Your task to perform on an android device: choose inbox layout in the gmail app Image 0: 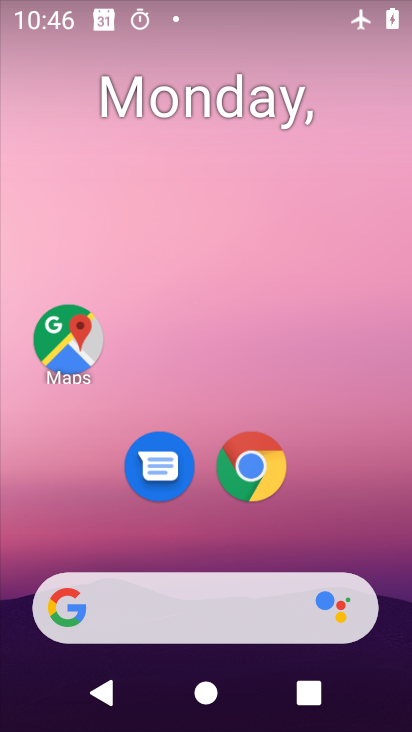
Step 0: drag from (274, 541) to (302, 86)
Your task to perform on an android device: choose inbox layout in the gmail app Image 1: 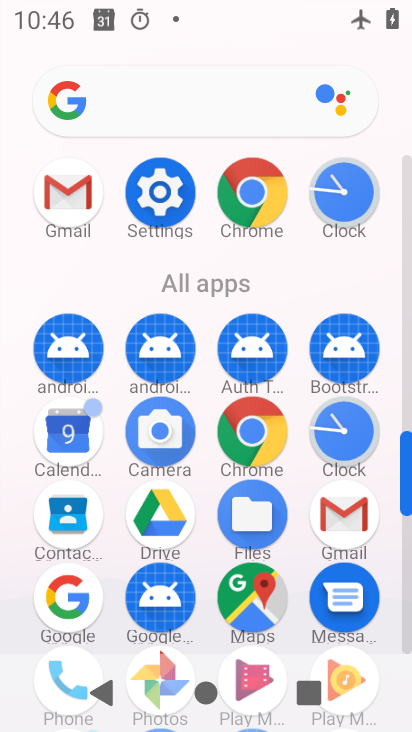
Step 1: click (344, 501)
Your task to perform on an android device: choose inbox layout in the gmail app Image 2: 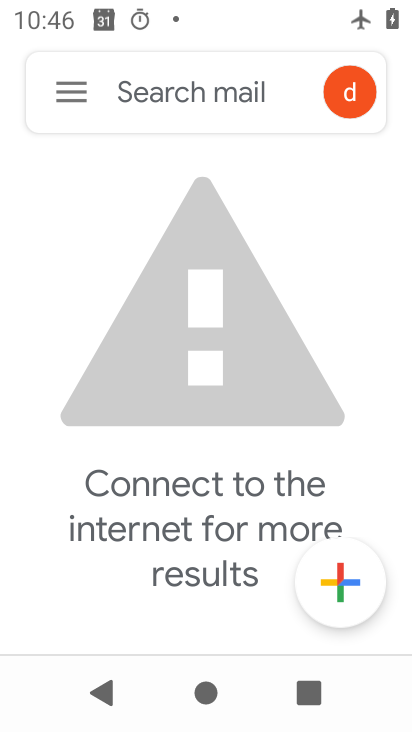
Step 2: click (71, 95)
Your task to perform on an android device: choose inbox layout in the gmail app Image 3: 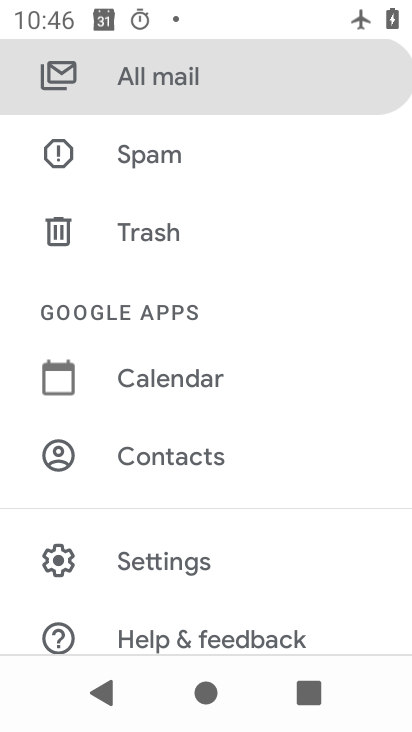
Step 3: click (232, 557)
Your task to perform on an android device: choose inbox layout in the gmail app Image 4: 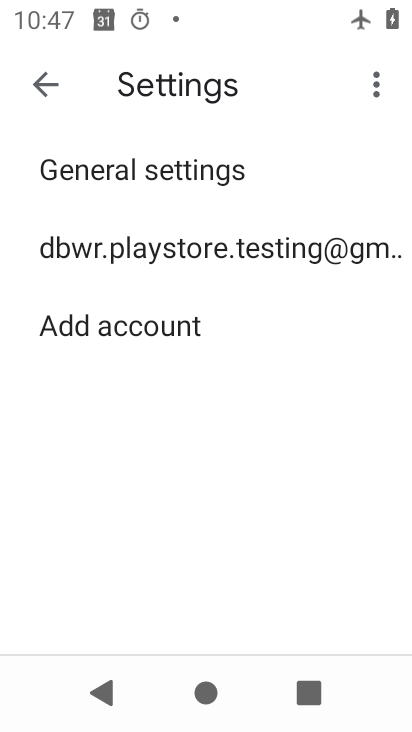
Step 4: click (139, 254)
Your task to perform on an android device: choose inbox layout in the gmail app Image 5: 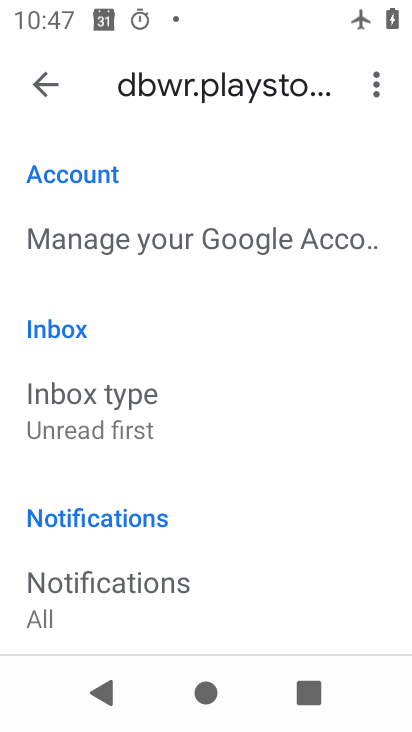
Step 5: click (127, 406)
Your task to perform on an android device: choose inbox layout in the gmail app Image 6: 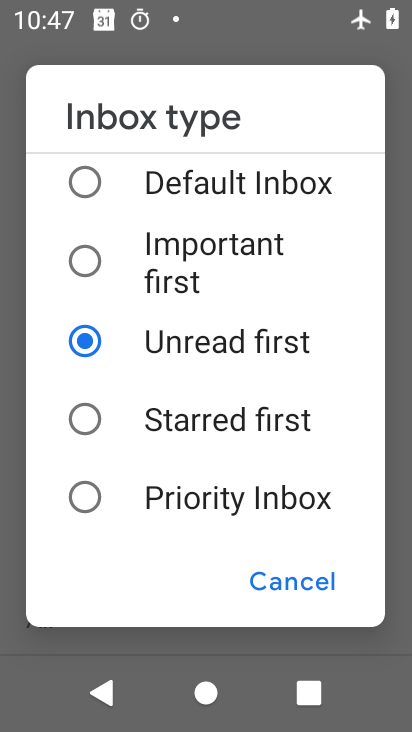
Step 6: click (191, 419)
Your task to perform on an android device: choose inbox layout in the gmail app Image 7: 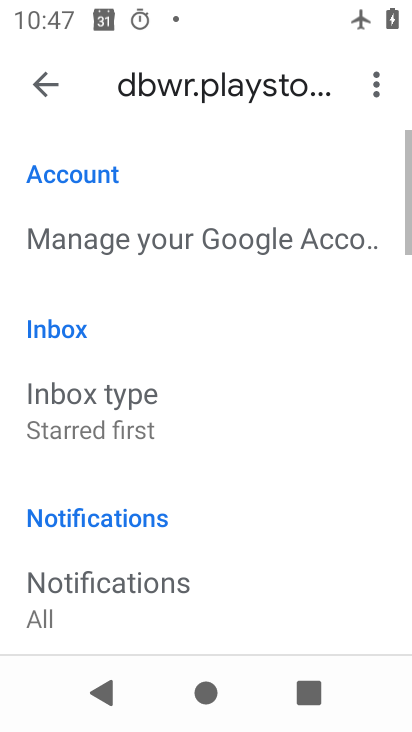
Step 7: task complete